Your task to perform on an android device: check storage Image 0: 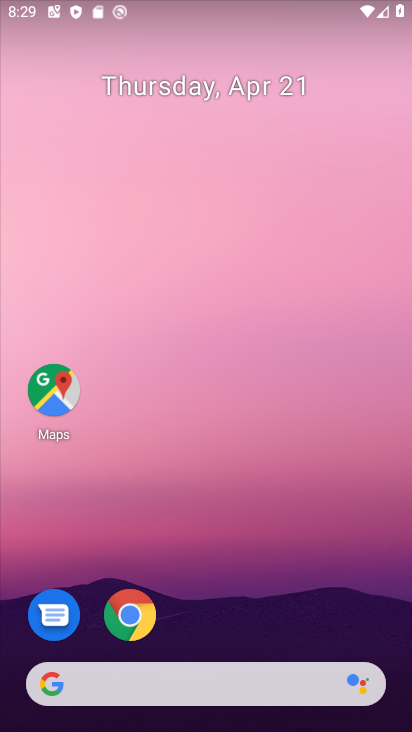
Step 0: drag from (227, 605) to (228, 24)
Your task to perform on an android device: check storage Image 1: 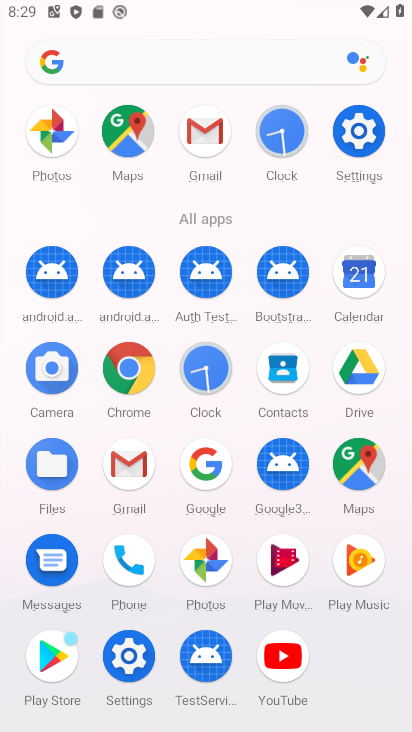
Step 1: click (360, 137)
Your task to perform on an android device: check storage Image 2: 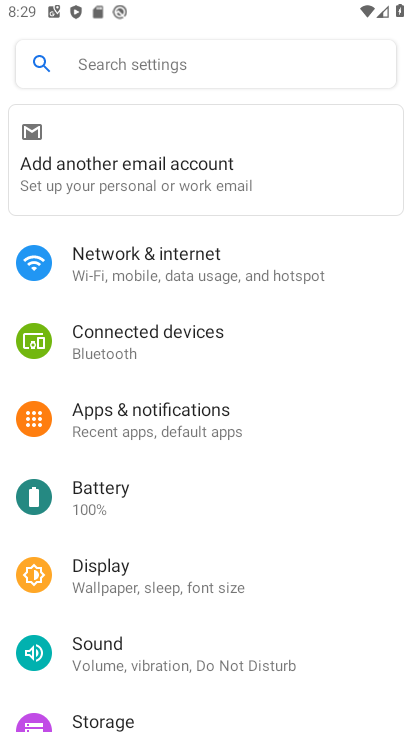
Step 2: click (112, 718)
Your task to perform on an android device: check storage Image 3: 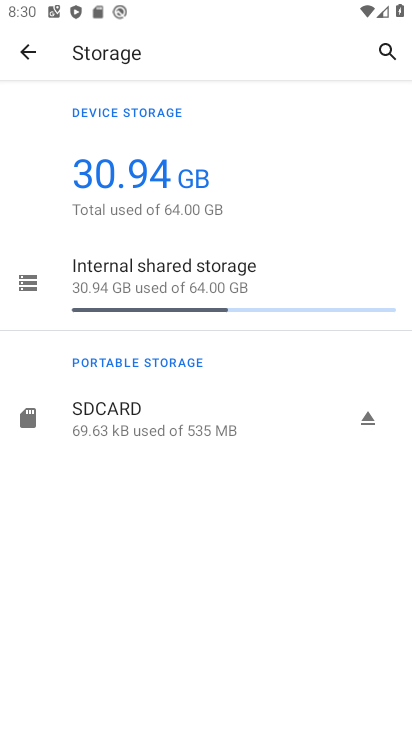
Step 3: task complete